Your task to perform on an android device: open wifi settings Image 0: 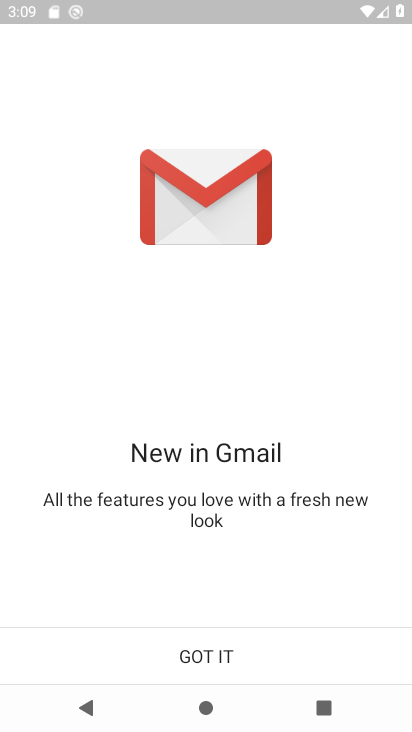
Step 0: press back button
Your task to perform on an android device: open wifi settings Image 1: 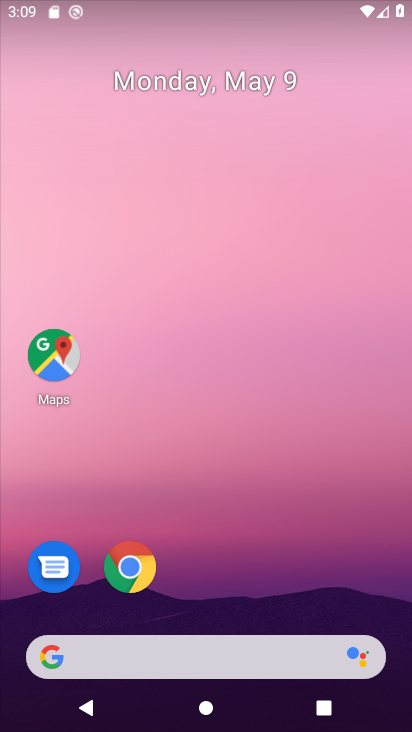
Step 1: drag from (226, 630) to (235, 368)
Your task to perform on an android device: open wifi settings Image 2: 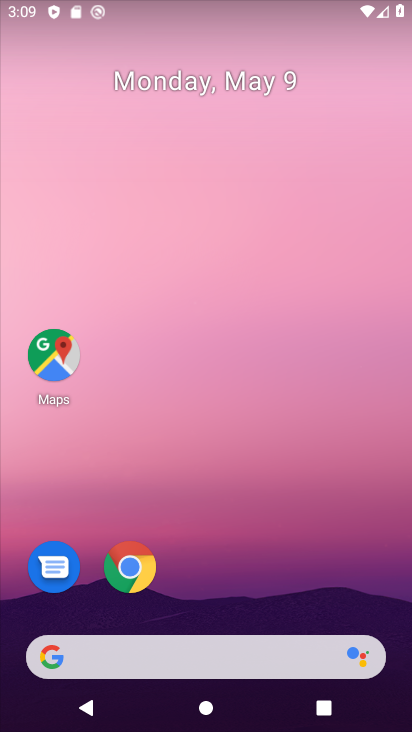
Step 2: drag from (217, 625) to (246, 2)
Your task to perform on an android device: open wifi settings Image 3: 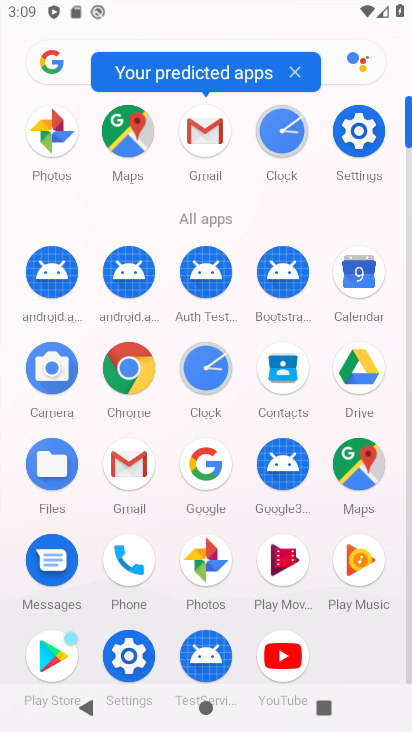
Step 3: click (134, 656)
Your task to perform on an android device: open wifi settings Image 4: 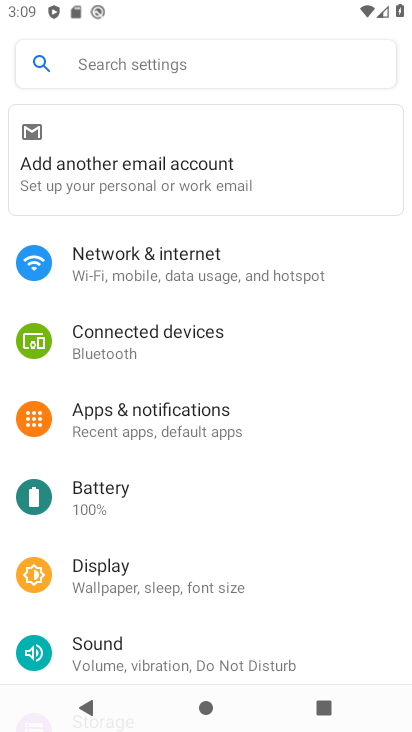
Step 4: click (247, 264)
Your task to perform on an android device: open wifi settings Image 5: 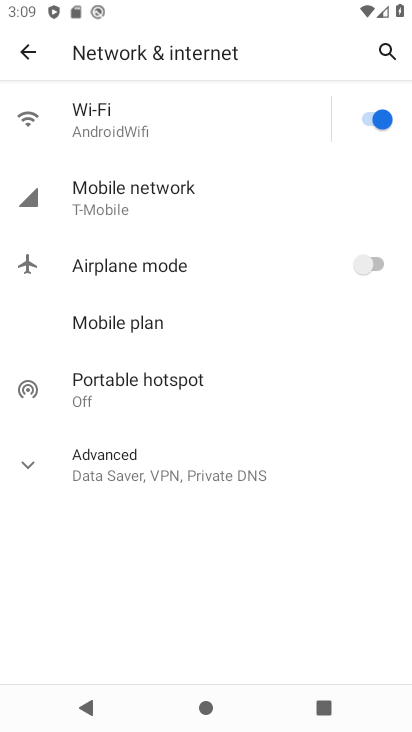
Step 5: click (85, 151)
Your task to perform on an android device: open wifi settings Image 6: 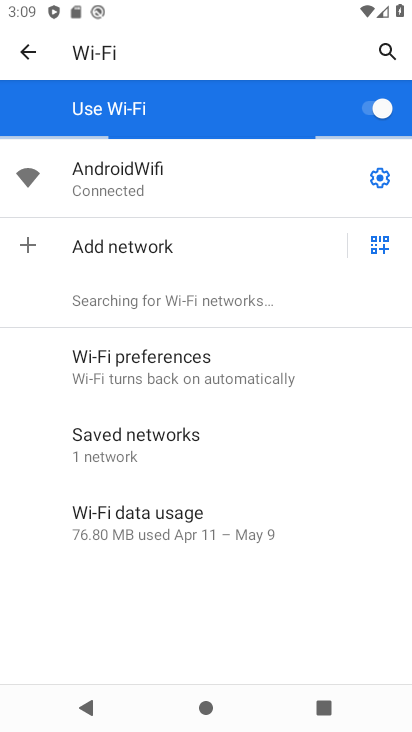
Step 6: task complete